Your task to perform on an android device: What's the weather going to be this weekend? Image 0: 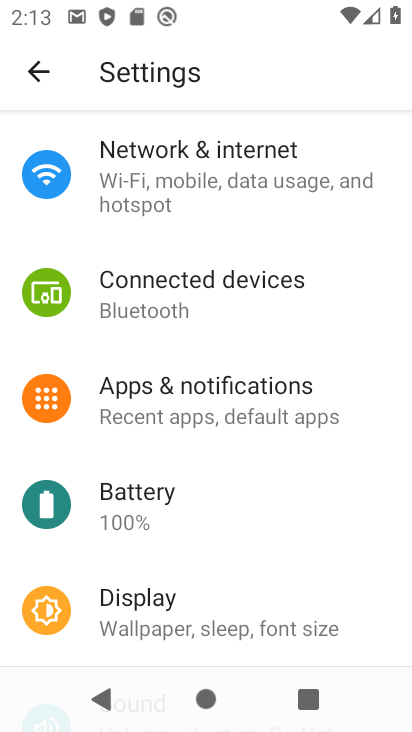
Step 0: press home button
Your task to perform on an android device: What's the weather going to be this weekend? Image 1: 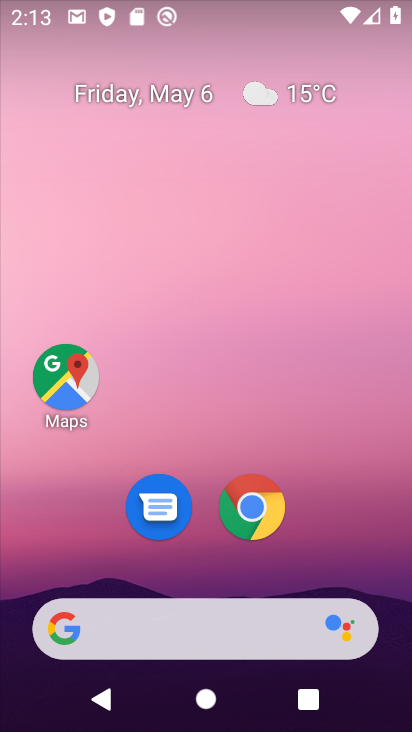
Step 1: click (249, 532)
Your task to perform on an android device: What's the weather going to be this weekend? Image 2: 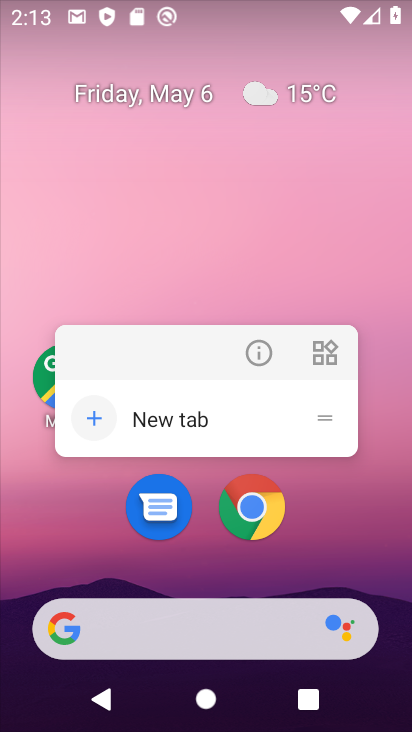
Step 2: click (250, 544)
Your task to perform on an android device: What's the weather going to be this weekend? Image 3: 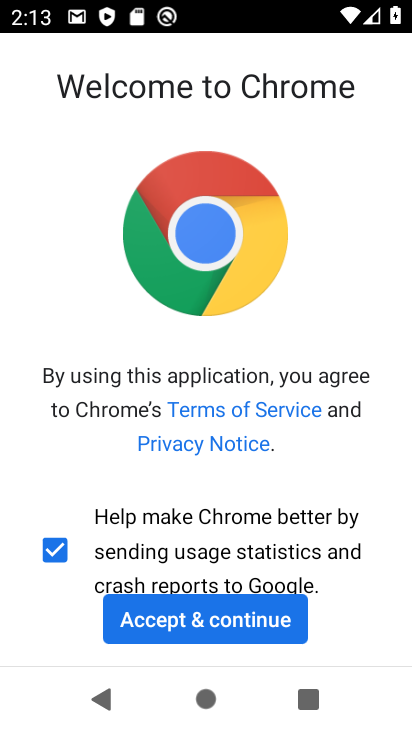
Step 3: click (225, 627)
Your task to perform on an android device: What's the weather going to be this weekend? Image 4: 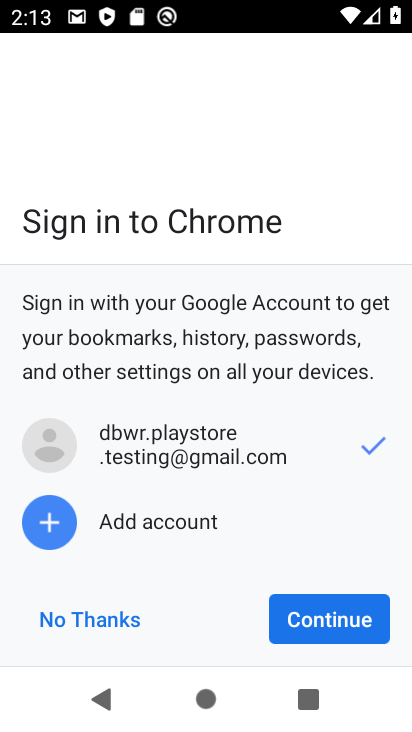
Step 4: click (333, 630)
Your task to perform on an android device: What's the weather going to be this weekend? Image 5: 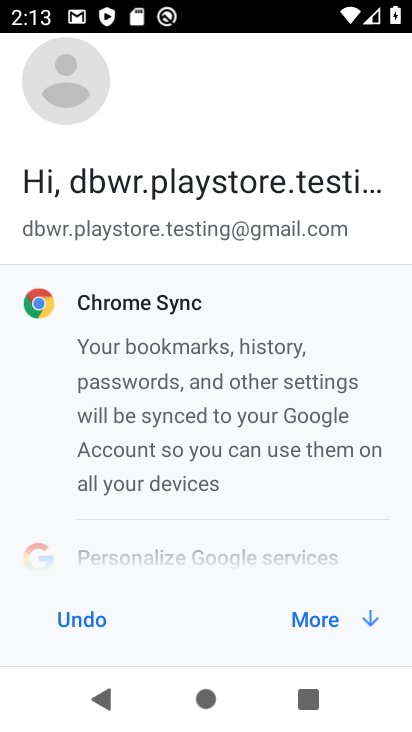
Step 5: click (330, 621)
Your task to perform on an android device: What's the weather going to be this weekend? Image 6: 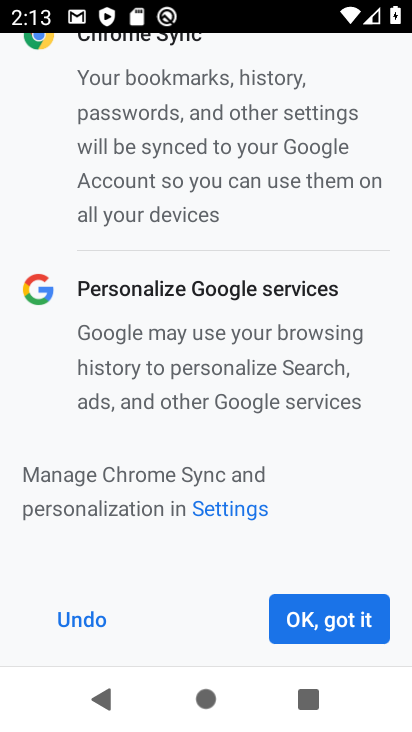
Step 6: click (320, 626)
Your task to perform on an android device: What's the weather going to be this weekend? Image 7: 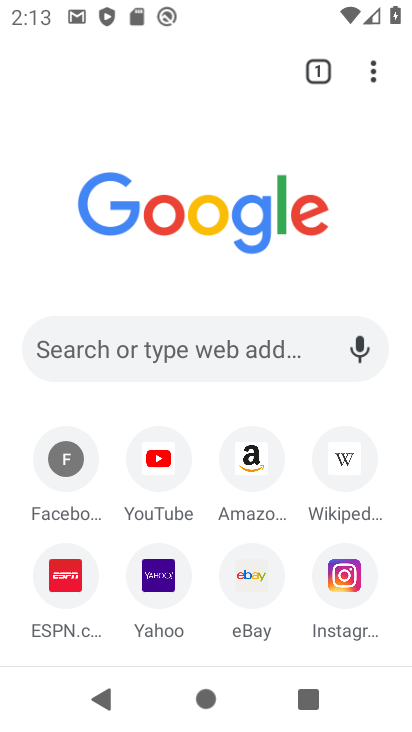
Step 7: click (125, 349)
Your task to perform on an android device: What's the weather going to be this weekend? Image 8: 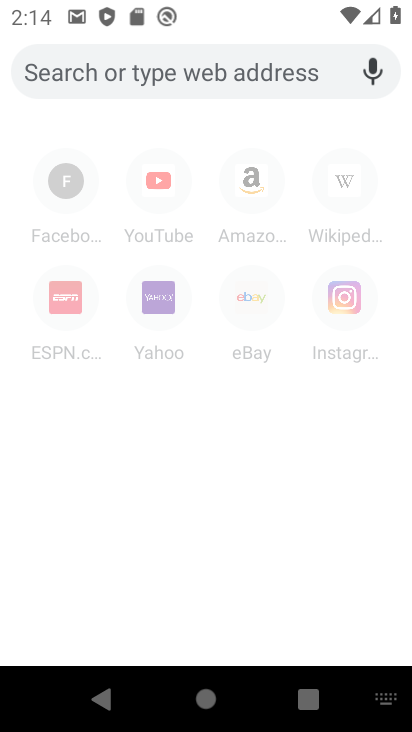
Step 8: type "whats the weather going to be this weekend?"
Your task to perform on an android device: What's the weather going to be this weekend? Image 9: 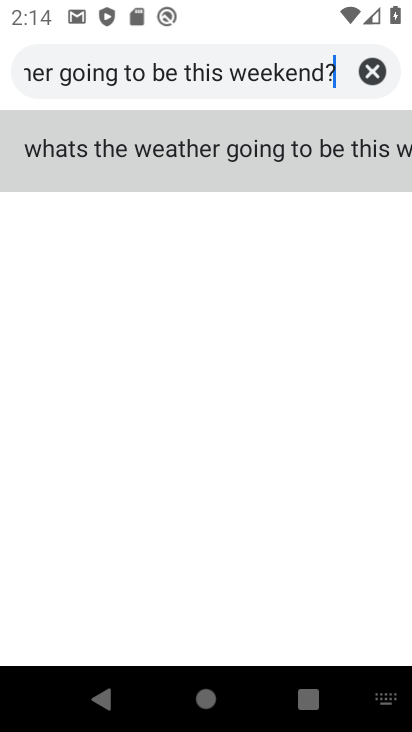
Step 9: click (292, 162)
Your task to perform on an android device: What's the weather going to be this weekend? Image 10: 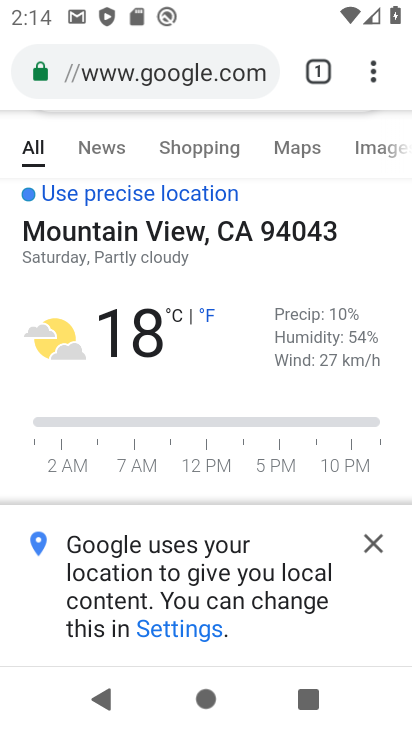
Step 10: task complete